Your task to perform on an android device: What's the weather today? Image 0: 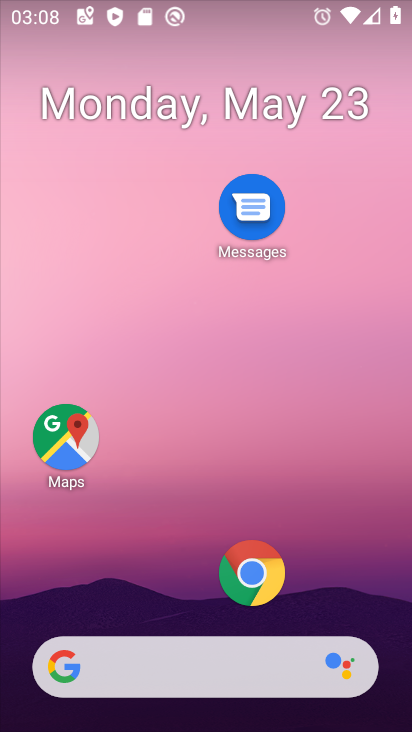
Step 0: drag from (187, 708) to (327, 0)
Your task to perform on an android device: What's the weather today? Image 1: 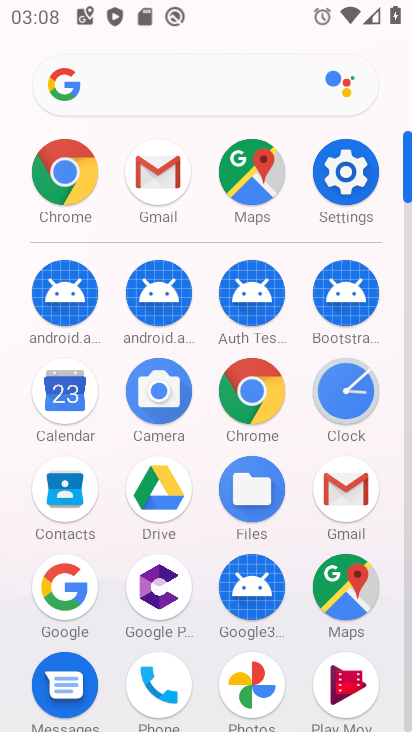
Step 1: press home button
Your task to perform on an android device: What's the weather today? Image 2: 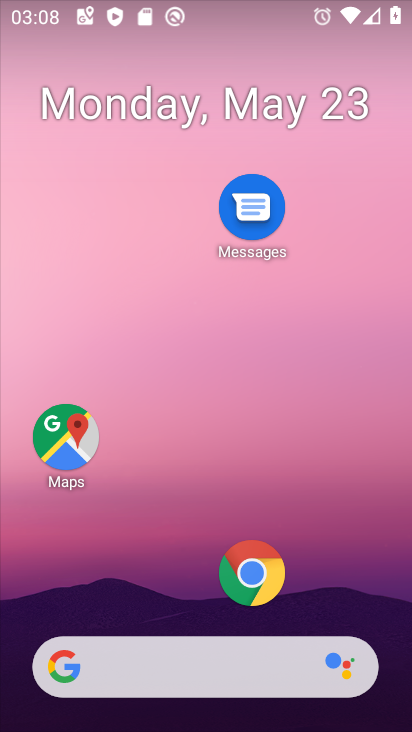
Step 2: drag from (90, 383) to (402, 399)
Your task to perform on an android device: What's the weather today? Image 3: 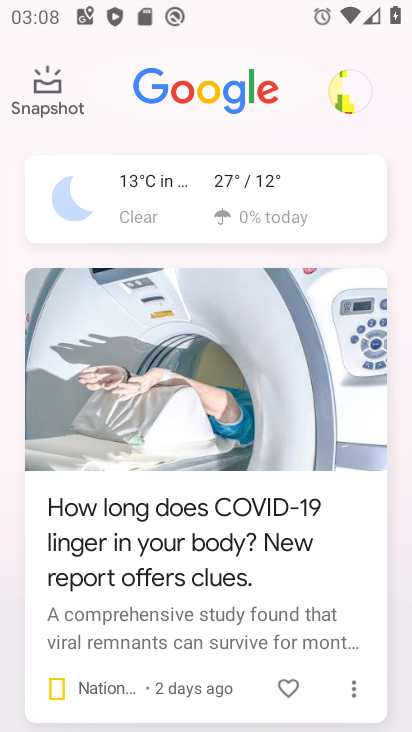
Step 3: click (248, 204)
Your task to perform on an android device: What's the weather today? Image 4: 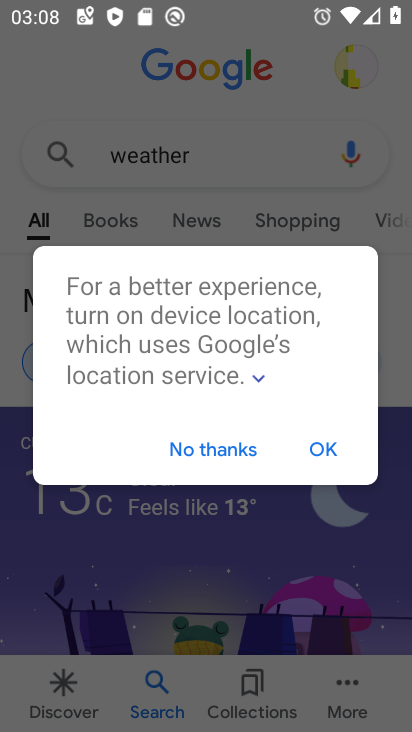
Step 4: click (204, 445)
Your task to perform on an android device: What's the weather today? Image 5: 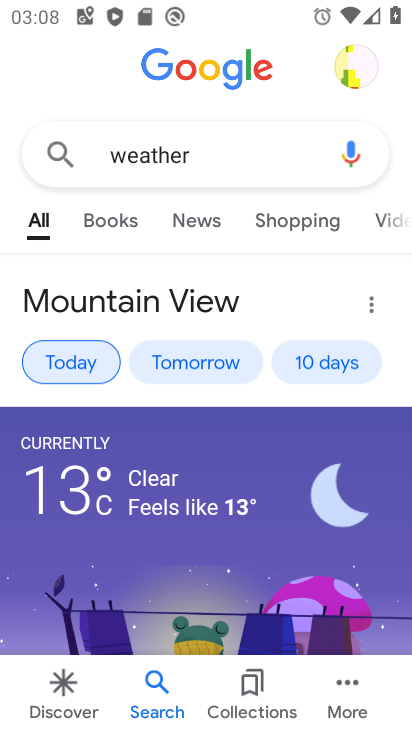
Step 5: task complete